Your task to perform on an android device: change notification settings in the gmail app Image 0: 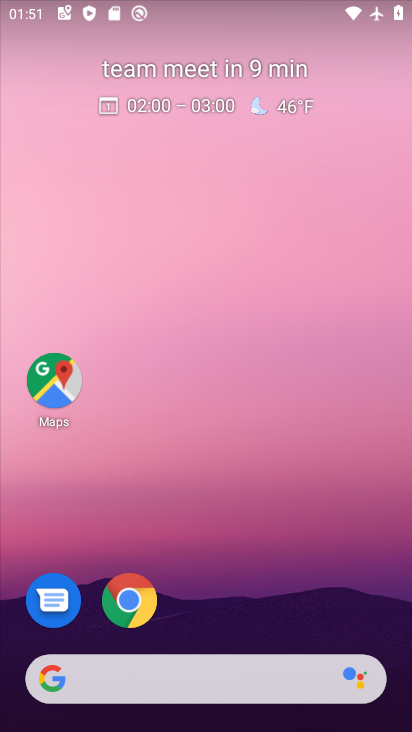
Step 0: drag from (207, 632) to (193, 23)
Your task to perform on an android device: change notification settings in the gmail app Image 1: 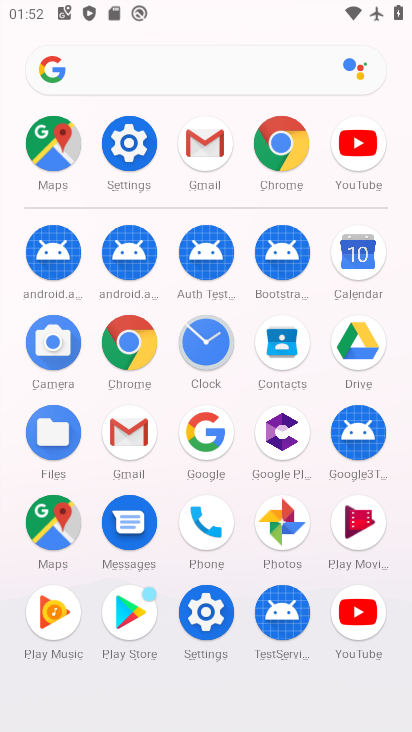
Step 1: click (117, 453)
Your task to perform on an android device: change notification settings in the gmail app Image 2: 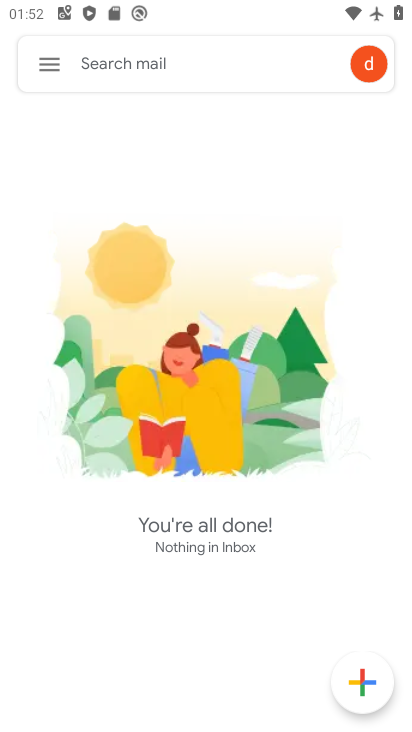
Step 2: click (36, 57)
Your task to perform on an android device: change notification settings in the gmail app Image 3: 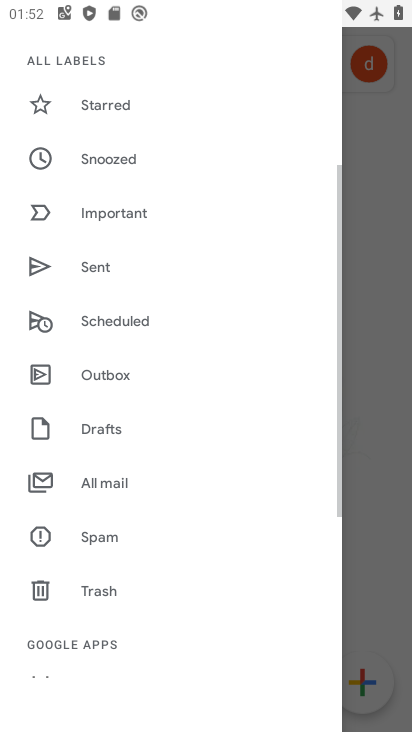
Step 3: drag from (131, 577) to (106, 160)
Your task to perform on an android device: change notification settings in the gmail app Image 4: 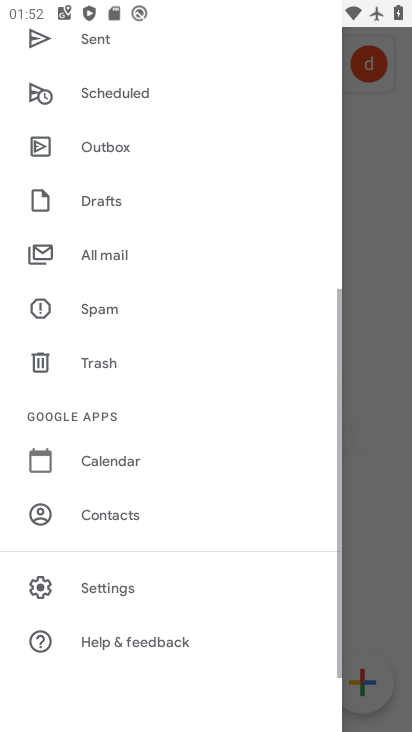
Step 4: click (101, 584)
Your task to perform on an android device: change notification settings in the gmail app Image 5: 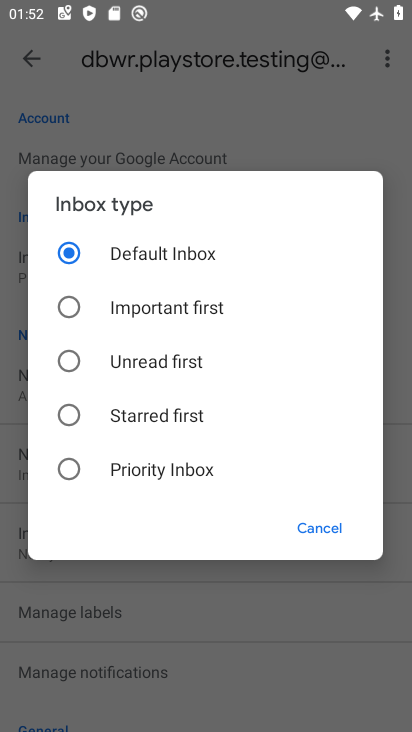
Step 5: click (317, 521)
Your task to perform on an android device: change notification settings in the gmail app Image 6: 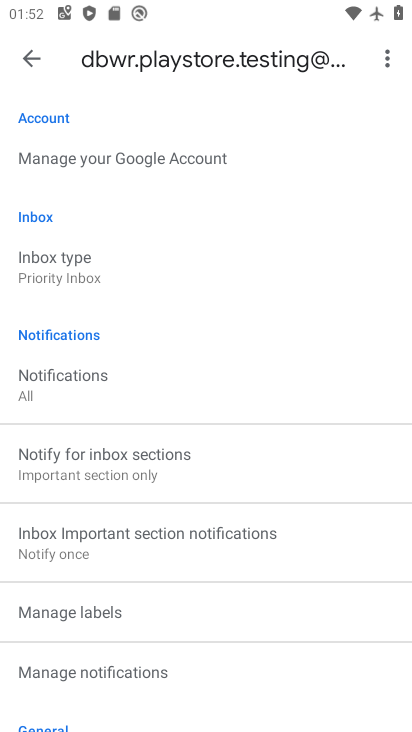
Step 6: click (25, 60)
Your task to perform on an android device: change notification settings in the gmail app Image 7: 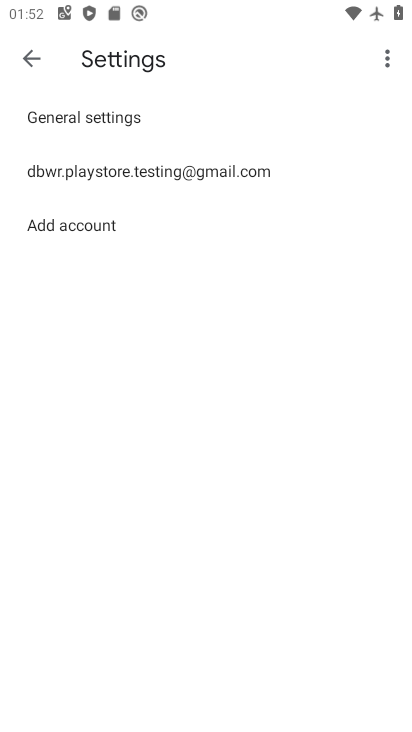
Step 7: click (50, 108)
Your task to perform on an android device: change notification settings in the gmail app Image 8: 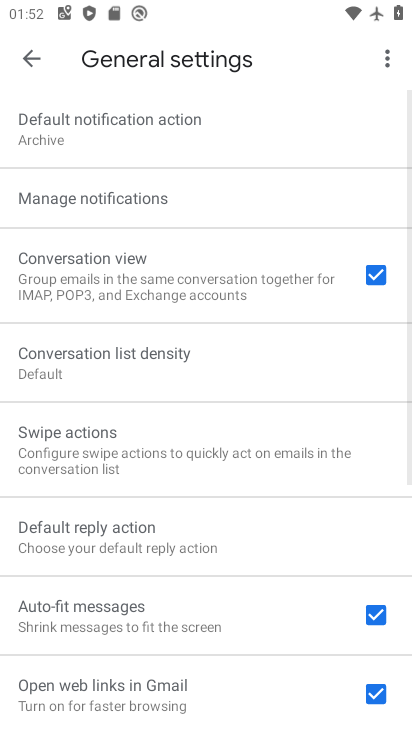
Step 8: click (83, 203)
Your task to perform on an android device: change notification settings in the gmail app Image 9: 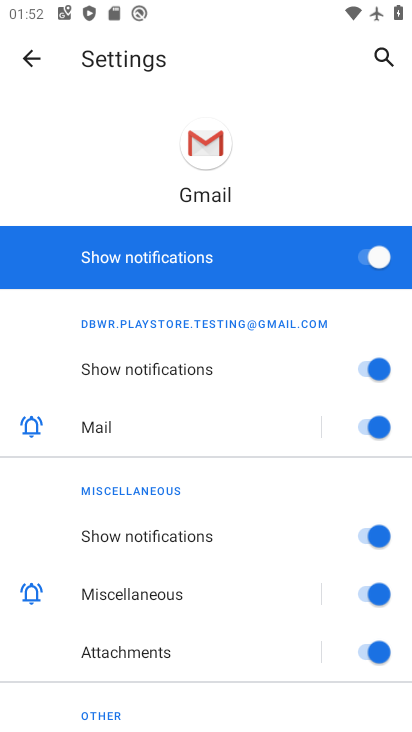
Step 9: click (368, 267)
Your task to perform on an android device: change notification settings in the gmail app Image 10: 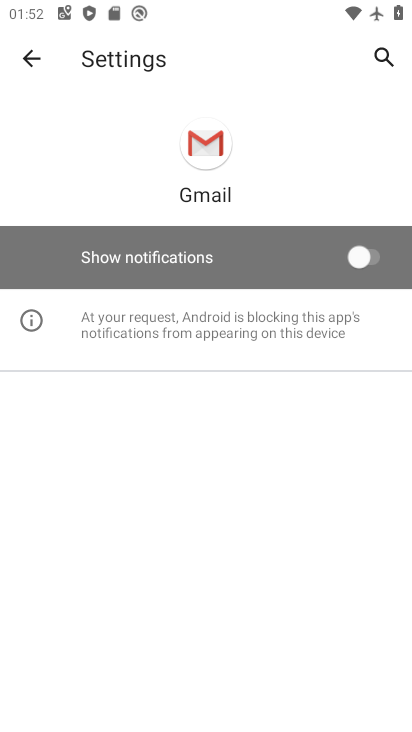
Step 10: task complete